Your task to perform on an android device: check data usage Image 0: 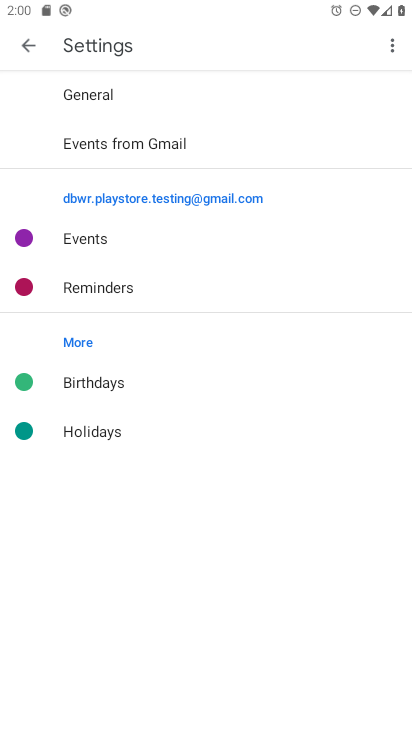
Step 0: press home button
Your task to perform on an android device: check data usage Image 1: 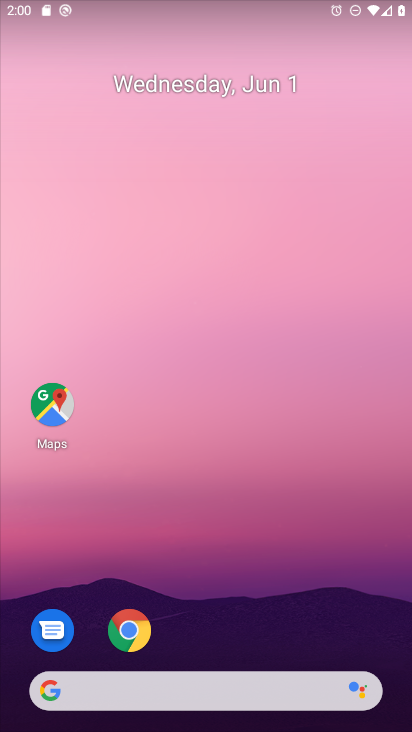
Step 1: drag from (285, 674) to (291, 27)
Your task to perform on an android device: check data usage Image 2: 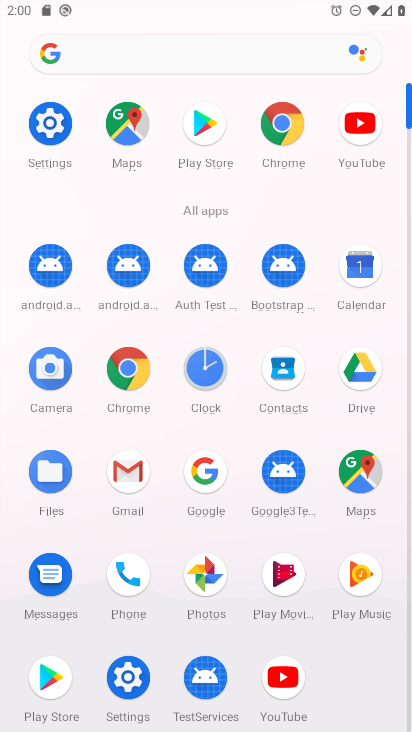
Step 2: click (62, 122)
Your task to perform on an android device: check data usage Image 3: 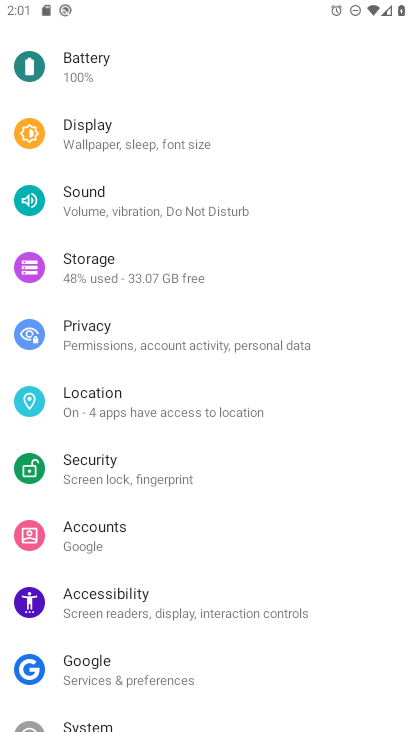
Step 3: drag from (203, 191) to (209, 603)
Your task to perform on an android device: check data usage Image 4: 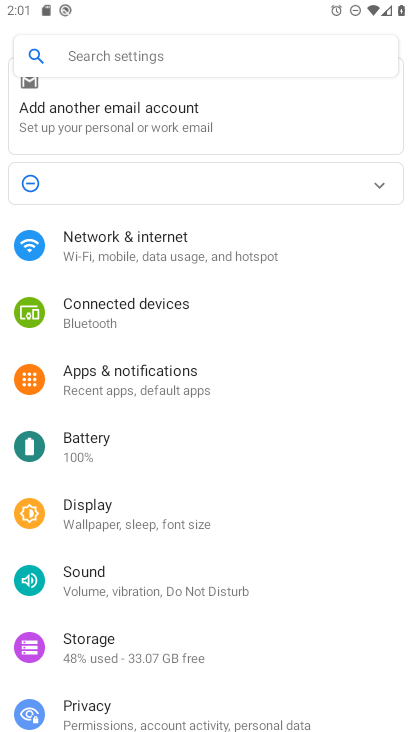
Step 4: click (215, 248)
Your task to perform on an android device: check data usage Image 5: 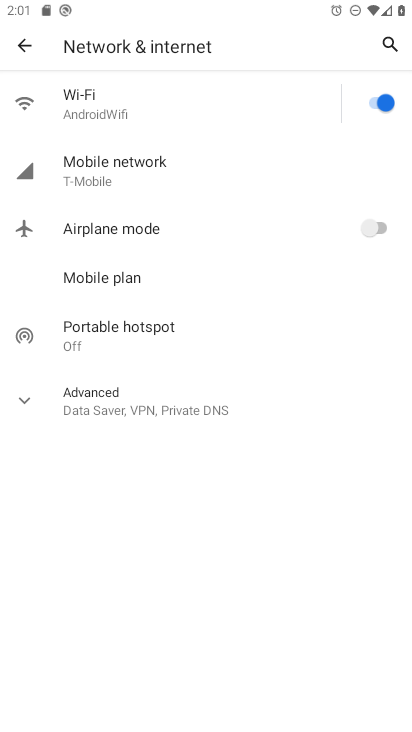
Step 5: click (116, 164)
Your task to perform on an android device: check data usage Image 6: 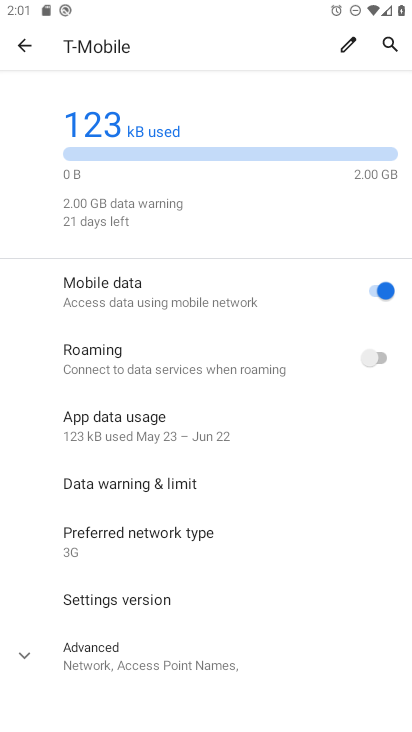
Step 6: task complete